Your task to perform on an android device: turn on translation in the chrome app Image 0: 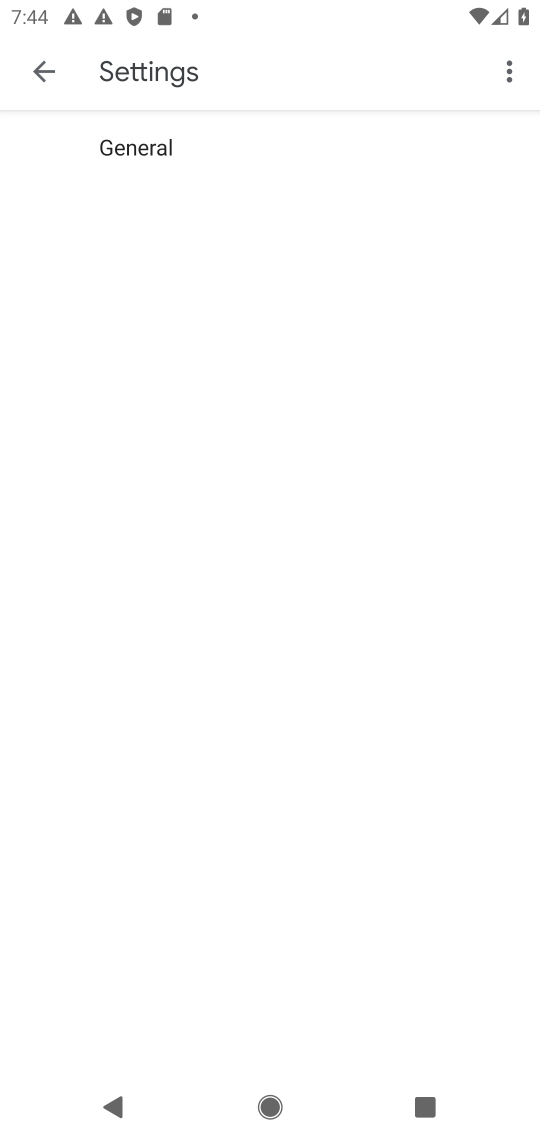
Step 0: press home button
Your task to perform on an android device: turn on translation in the chrome app Image 1: 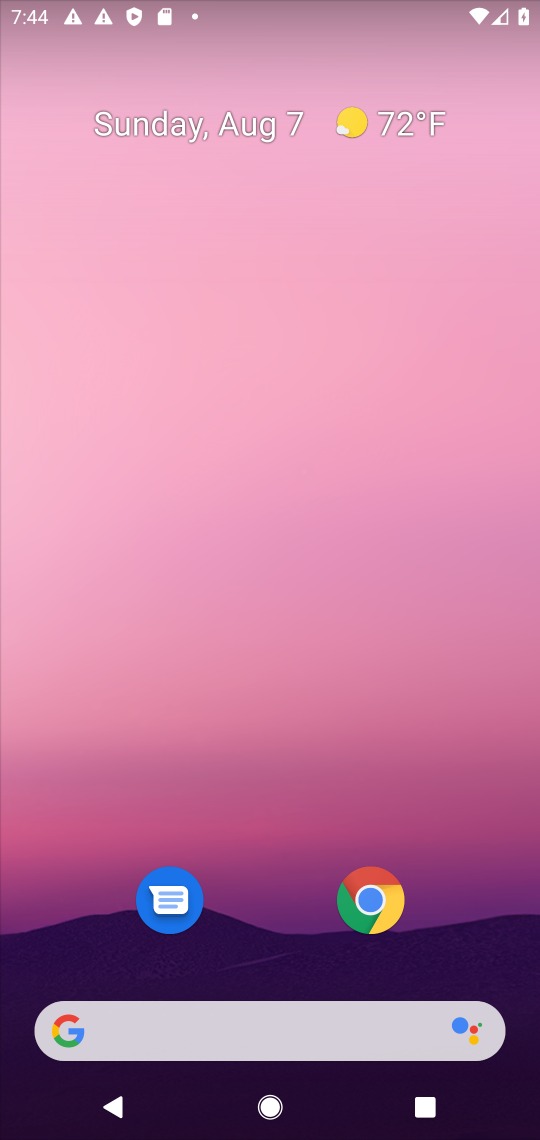
Step 1: click (373, 898)
Your task to perform on an android device: turn on translation in the chrome app Image 2: 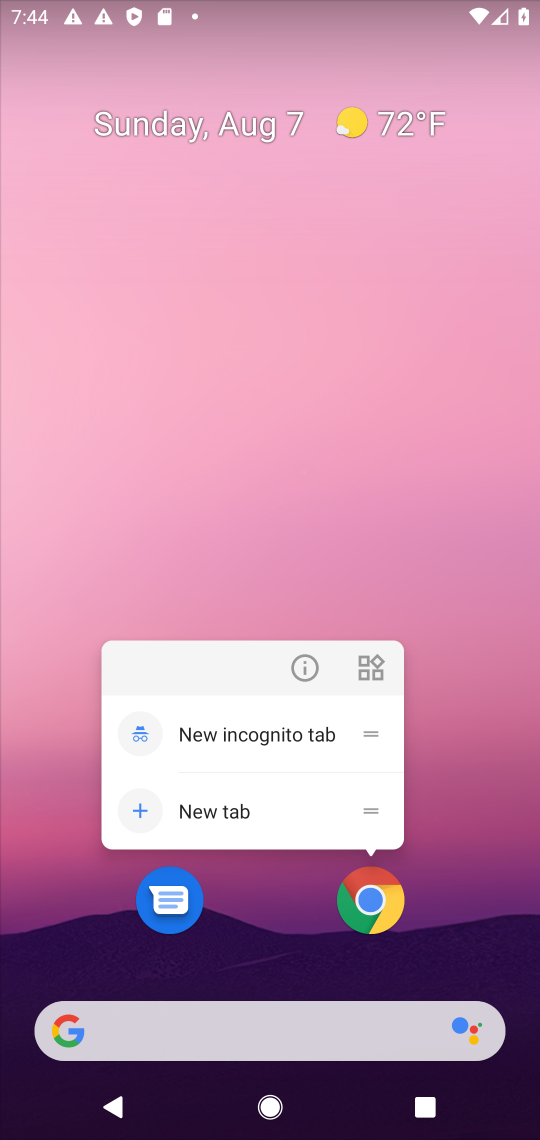
Step 2: click (373, 902)
Your task to perform on an android device: turn on translation in the chrome app Image 3: 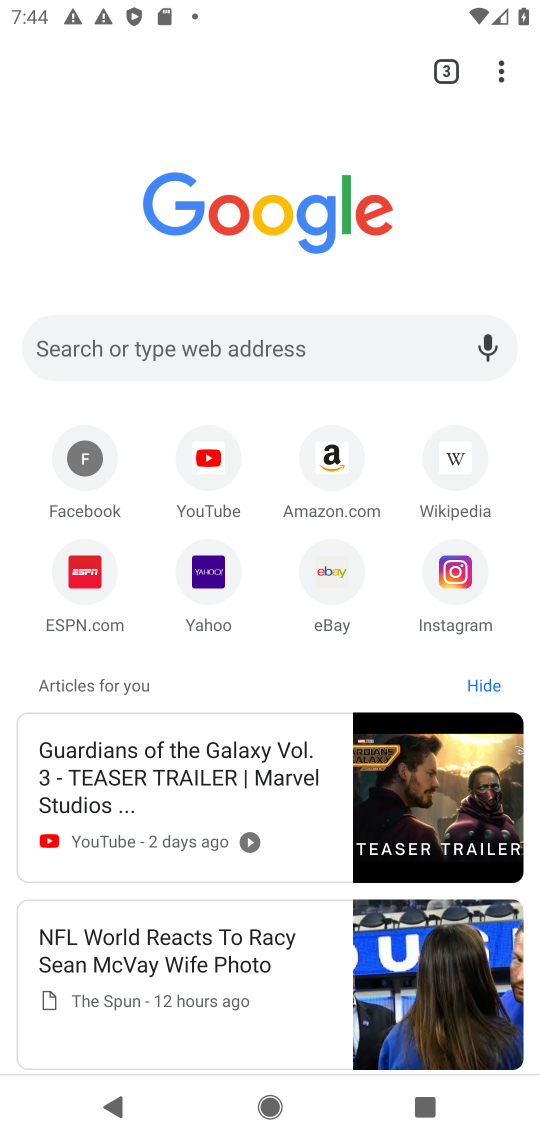
Step 3: drag from (495, 71) to (335, 609)
Your task to perform on an android device: turn on translation in the chrome app Image 4: 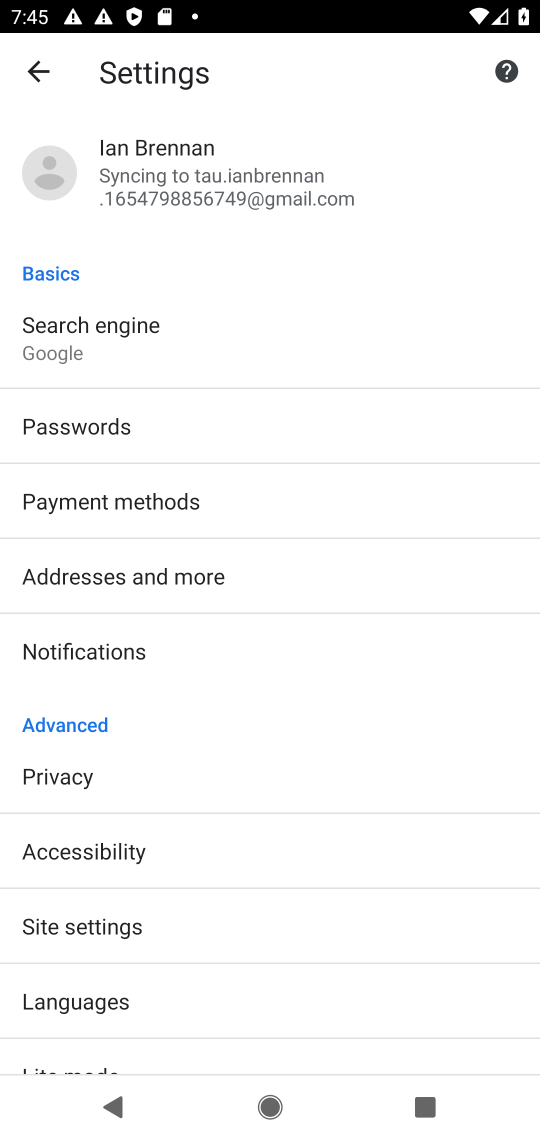
Step 4: drag from (221, 970) to (314, 485)
Your task to perform on an android device: turn on translation in the chrome app Image 5: 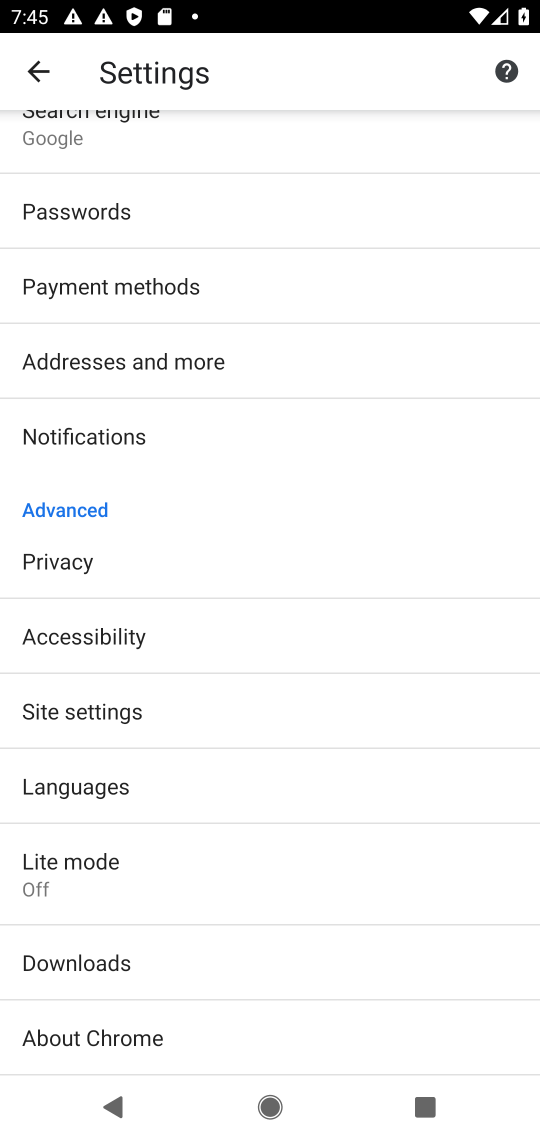
Step 5: click (69, 785)
Your task to perform on an android device: turn on translation in the chrome app Image 6: 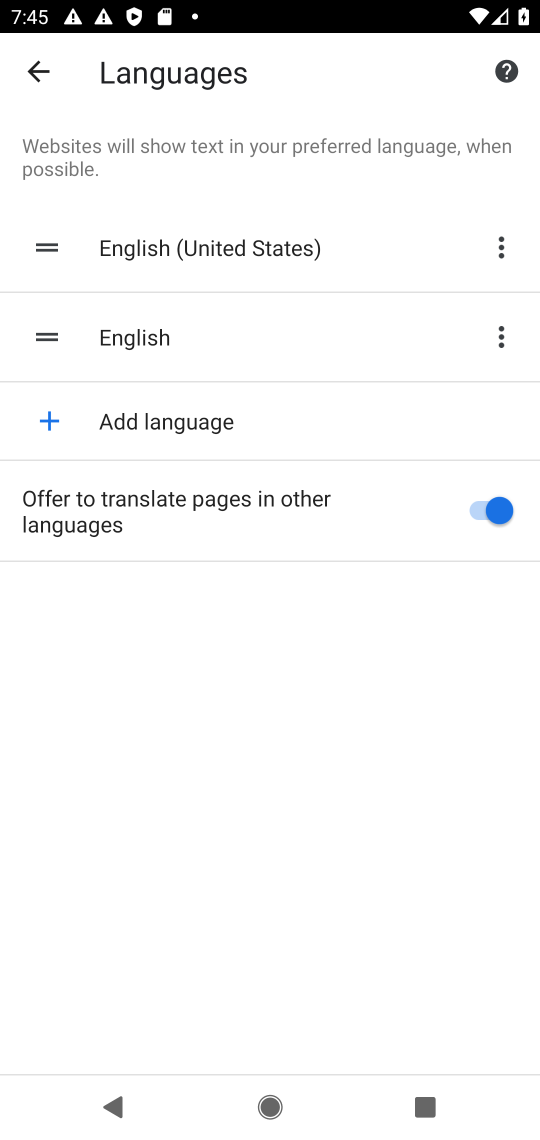
Step 6: task complete